Your task to perform on an android device: What is the recent news? Image 0: 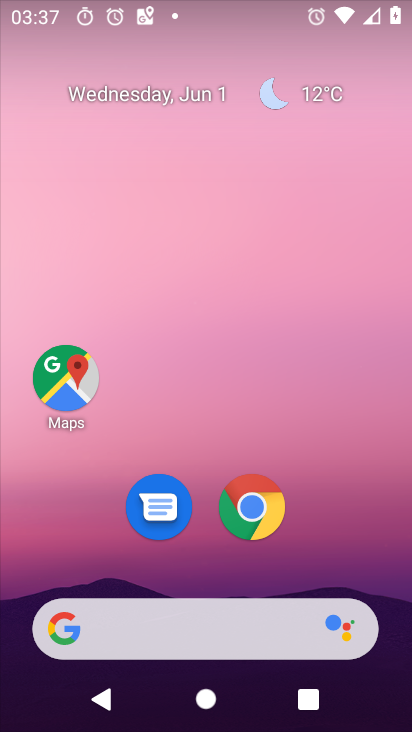
Step 0: click (131, 623)
Your task to perform on an android device: What is the recent news? Image 1: 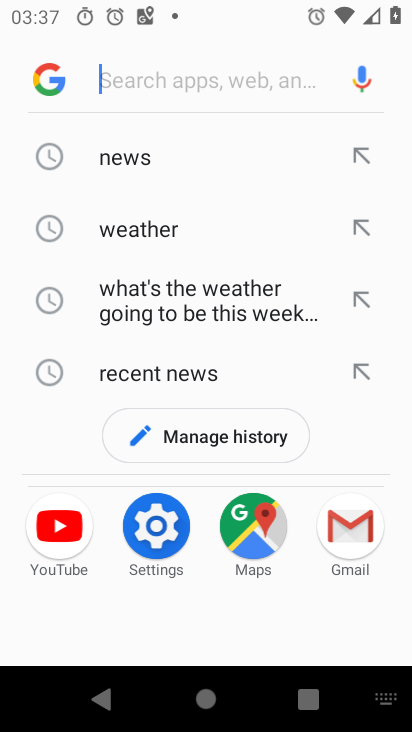
Step 1: click (136, 373)
Your task to perform on an android device: What is the recent news? Image 2: 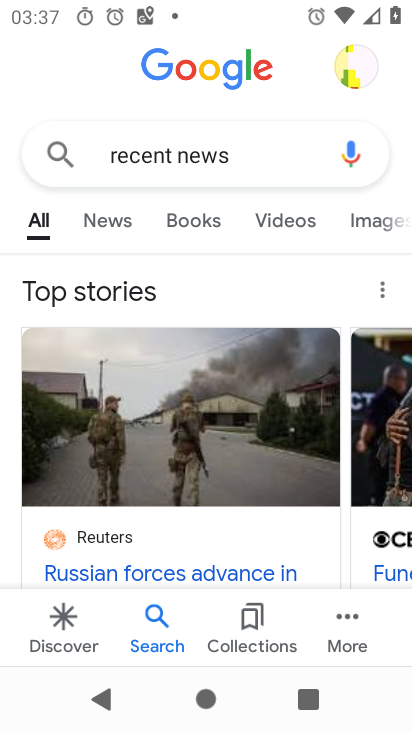
Step 2: drag from (157, 558) to (165, 249)
Your task to perform on an android device: What is the recent news? Image 3: 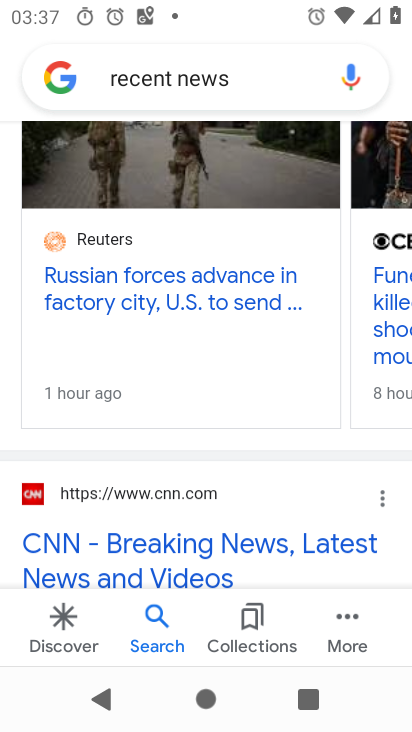
Step 3: click (215, 493)
Your task to perform on an android device: What is the recent news? Image 4: 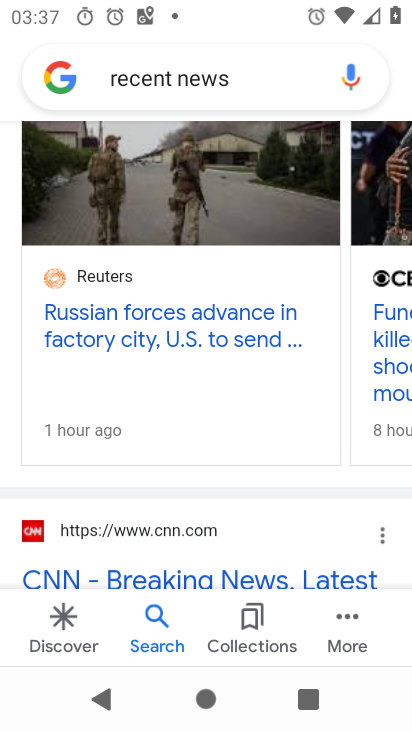
Step 4: drag from (163, 219) to (162, 447)
Your task to perform on an android device: What is the recent news? Image 5: 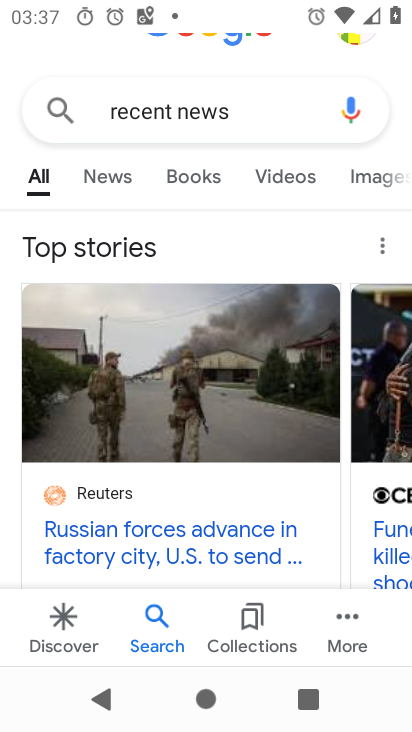
Step 5: click (114, 183)
Your task to perform on an android device: What is the recent news? Image 6: 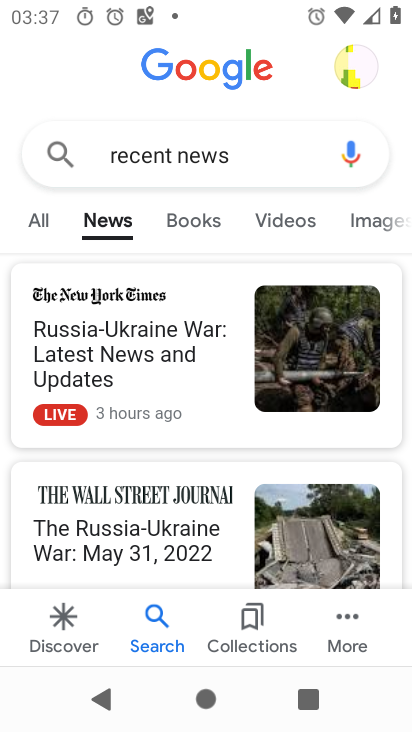
Step 6: drag from (189, 508) to (189, 276)
Your task to perform on an android device: What is the recent news? Image 7: 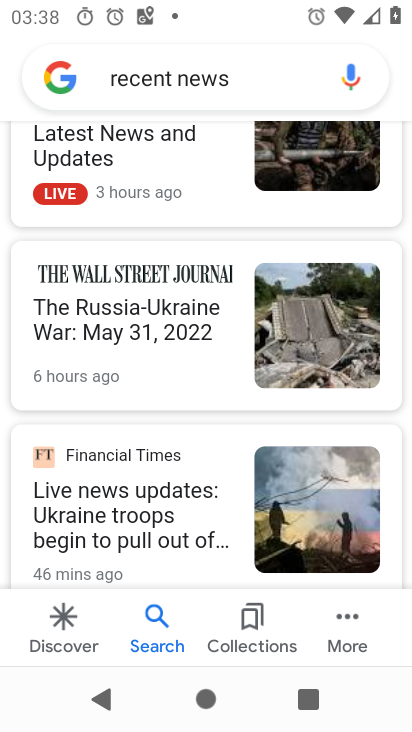
Step 7: drag from (165, 483) to (181, 237)
Your task to perform on an android device: What is the recent news? Image 8: 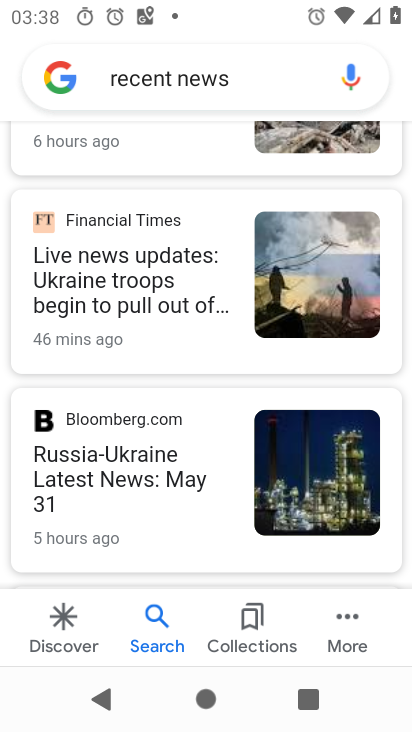
Step 8: click (129, 285)
Your task to perform on an android device: What is the recent news? Image 9: 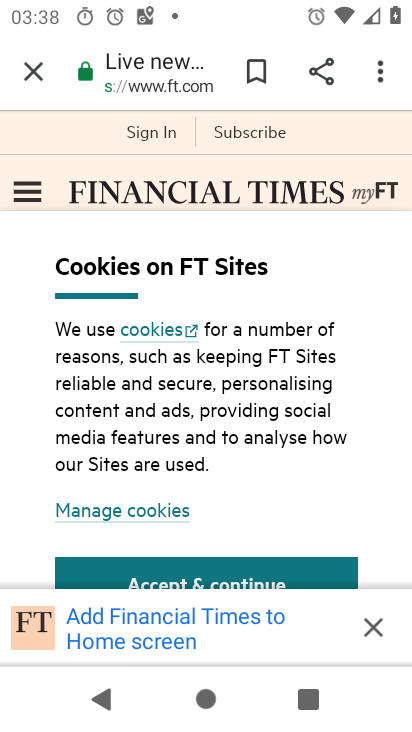
Step 9: task complete